Your task to perform on an android device: turn pop-ups on in chrome Image 0: 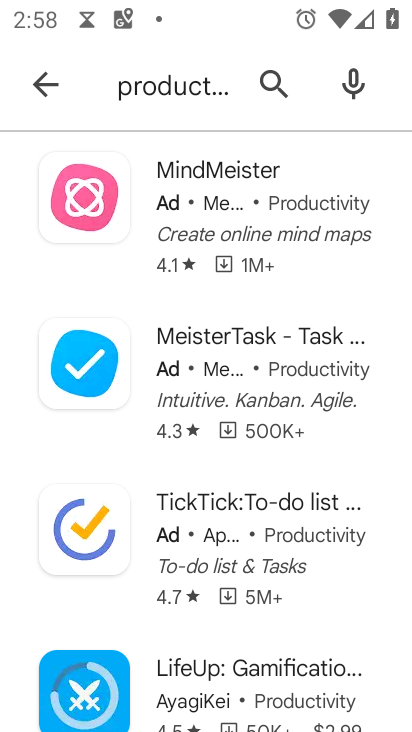
Step 0: press home button
Your task to perform on an android device: turn pop-ups on in chrome Image 1: 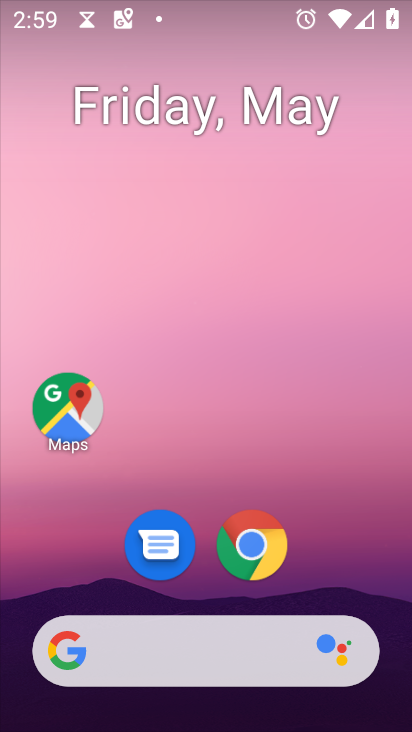
Step 1: click (253, 537)
Your task to perform on an android device: turn pop-ups on in chrome Image 2: 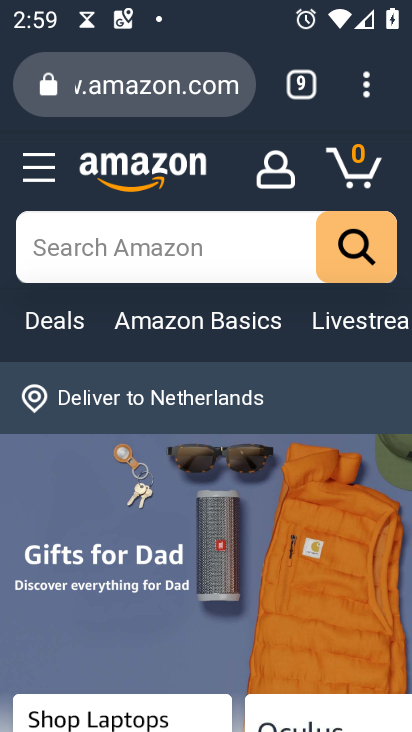
Step 2: click (367, 85)
Your task to perform on an android device: turn pop-ups on in chrome Image 3: 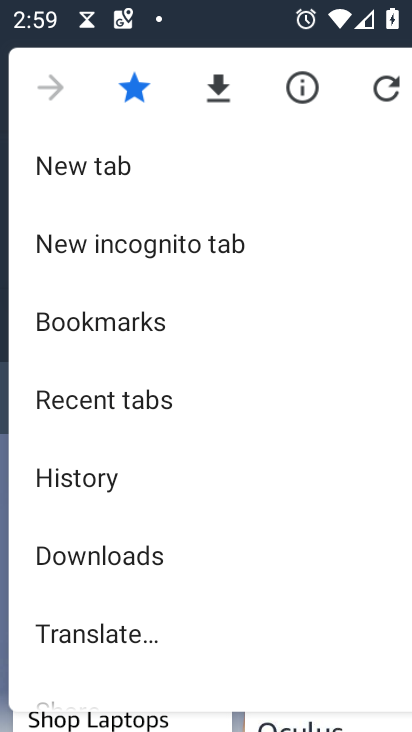
Step 3: drag from (240, 642) to (259, 333)
Your task to perform on an android device: turn pop-ups on in chrome Image 4: 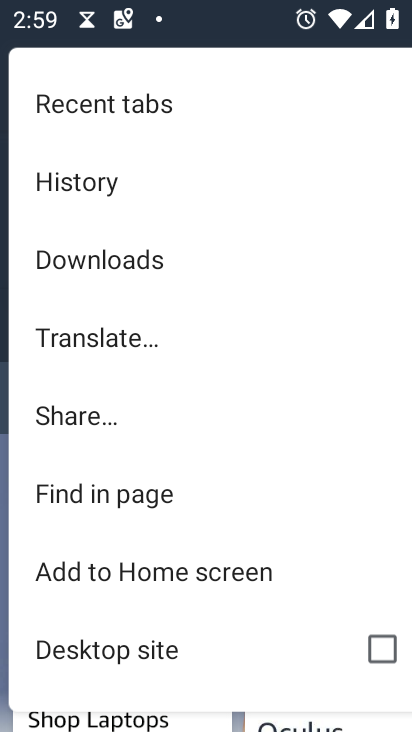
Step 4: drag from (217, 633) to (258, 278)
Your task to perform on an android device: turn pop-ups on in chrome Image 5: 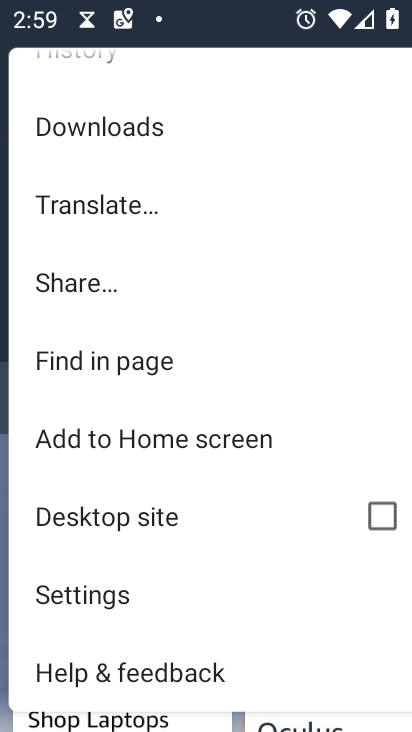
Step 5: click (112, 591)
Your task to perform on an android device: turn pop-ups on in chrome Image 6: 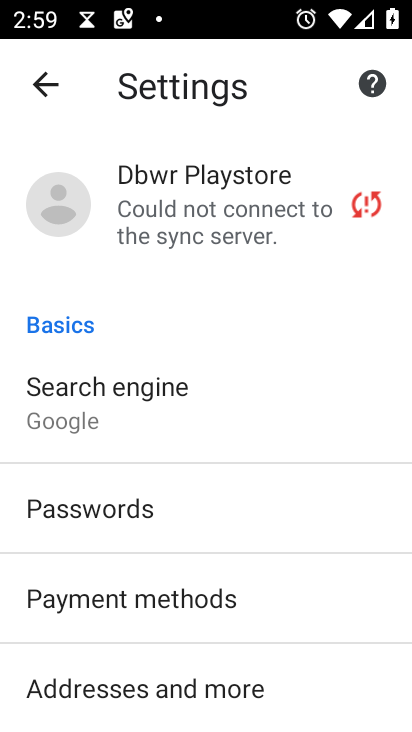
Step 6: drag from (292, 615) to (289, 330)
Your task to perform on an android device: turn pop-ups on in chrome Image 7: 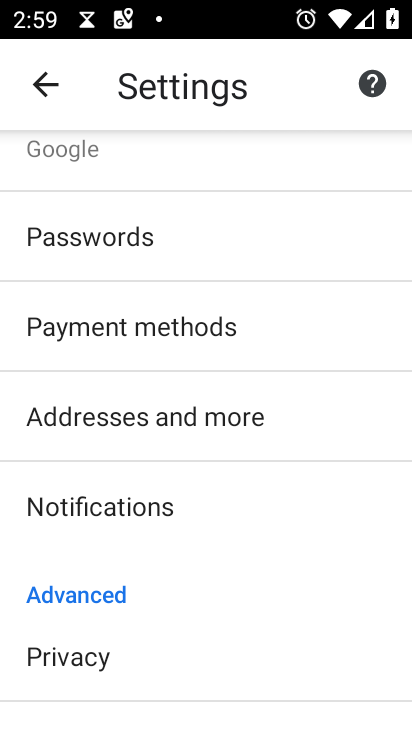
Step 7: drag from (275, 639) to (295, 237)
Your task to perform on an android device: turn pop-ups on in chrome Image 8: 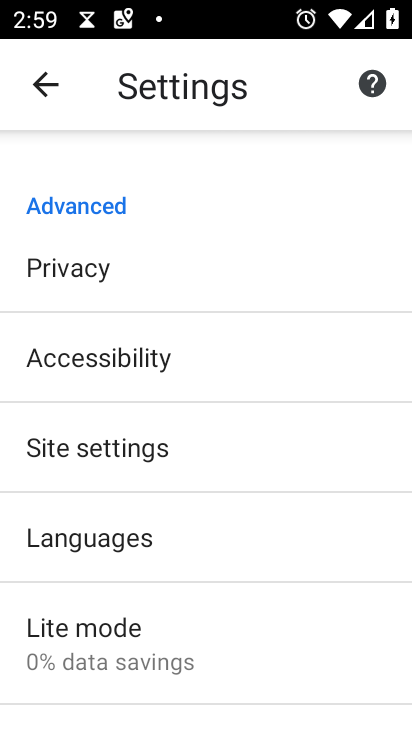
Step 8: click (182, 445)
Your task to perform on an android device: turn pop-ups on in chrome Image 9: 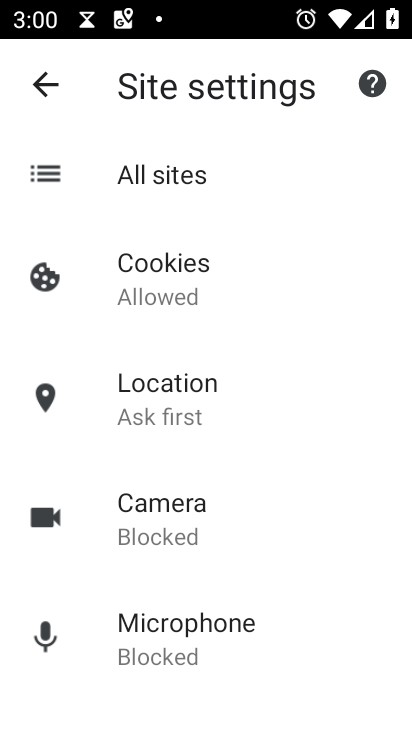
Step 9: drag from (288, 578) to (320, 183)
Your task to perform on an android device: turn pop-ups on in chrome Image 10: 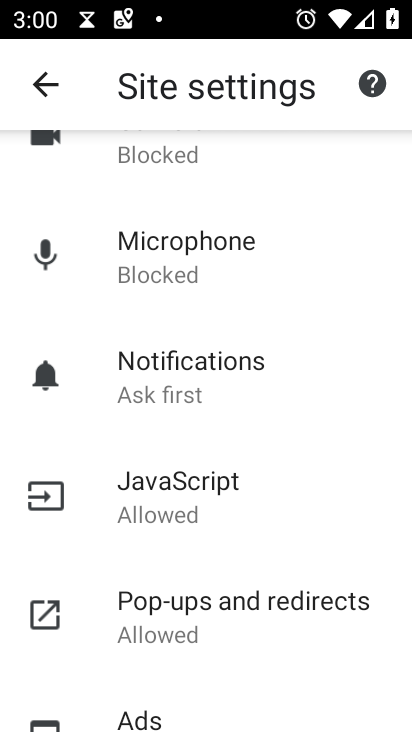
Step 10: click (259, 617)
Your task to perform on an android device: turn pop-ups on in chrome Image 11: 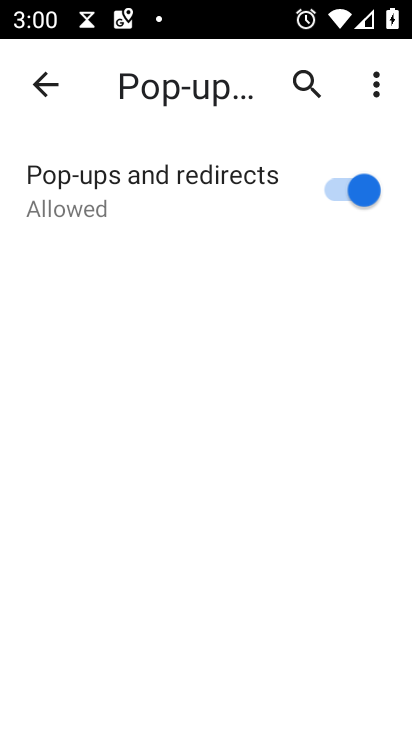
Step 11: task complete